Your task to perform on an android device: Go to Maps Image 0: 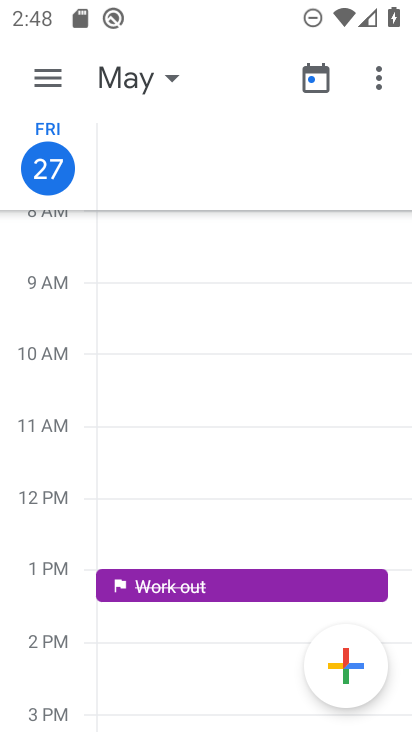
Step 0: press home button
Your task to perform on an android device: Go to Maps Image 1: 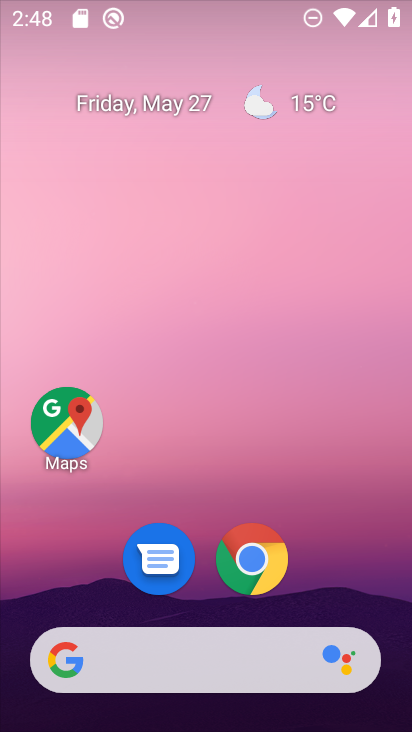
Step 1: drag from (284, 656) to (287, 0)
Your task to perform on an android device: Go to Maps Image 2: 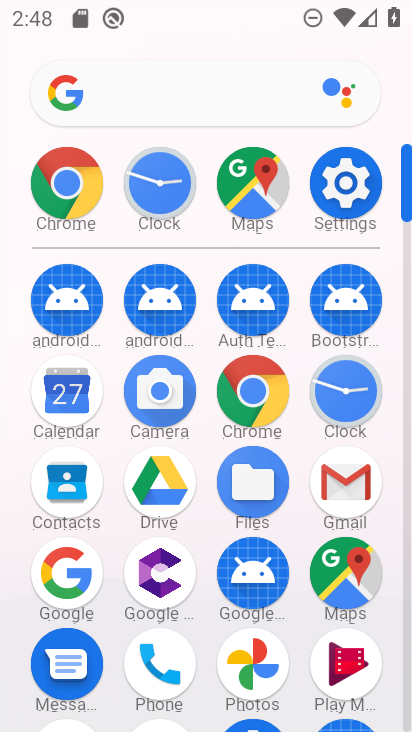
Step 2: click (362, 546)
Your task to perform on an android device: Go to Maps Image 3: 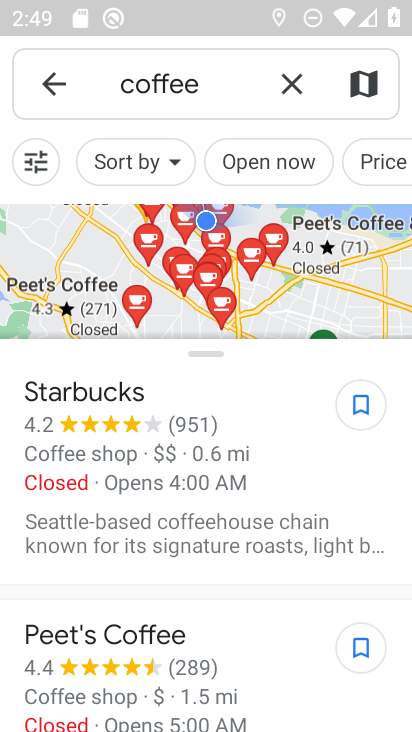
Step 3: task complete